Your task to perform on an android device: turn on improve location accuracy Image 0: 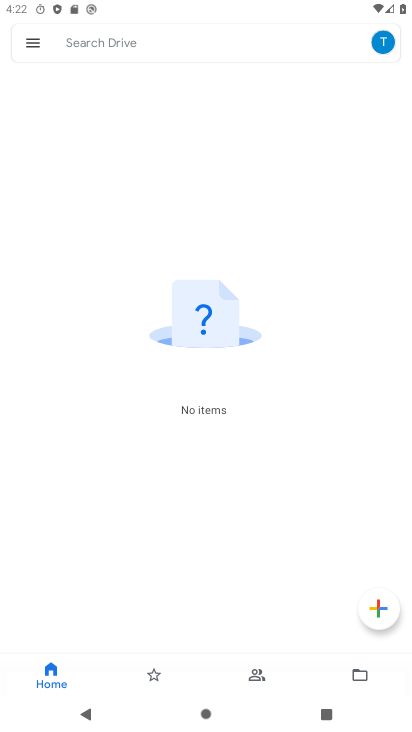
Step 0: press home button
Your task to perform on an android device: turn on improve location accuracy Image 1: 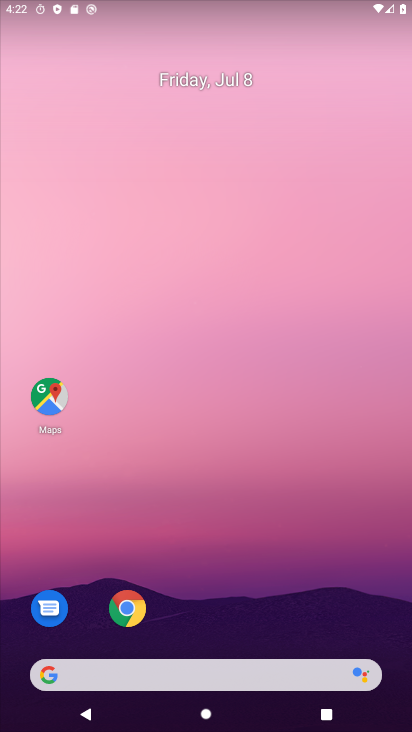
Step 1: drag from (260, 608) to (237, 0)
Your task to perform on an android device: turn on improve location accuracy Image 2: 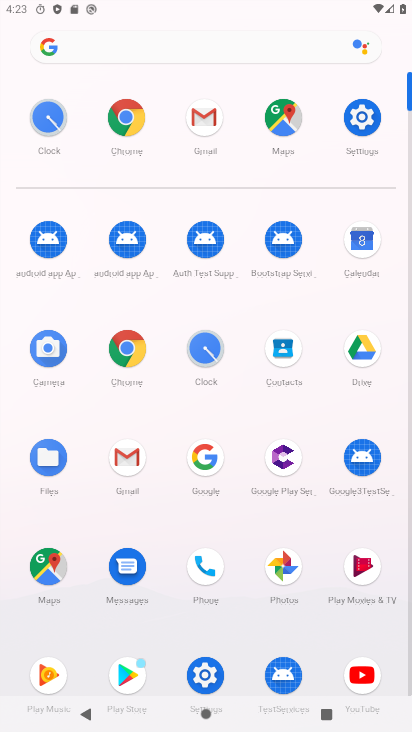
Step 2: click (375, 124)
Your task to perform on an android device: turn on improve location accuracy Image 3: 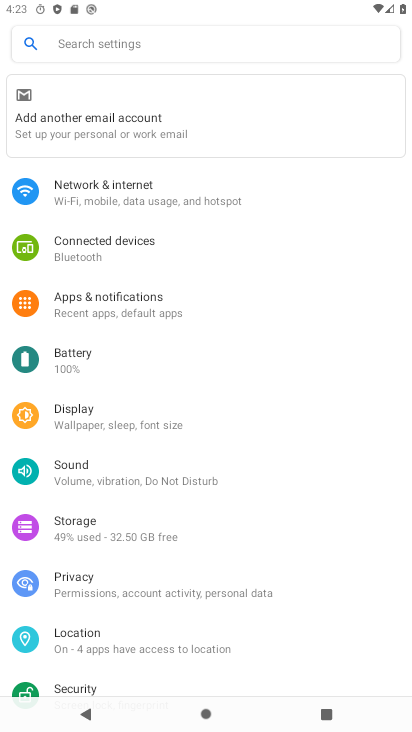
Step 3: click (84, 639)
Your task to perform on an android device: turn on improve location accuracy Image 4: 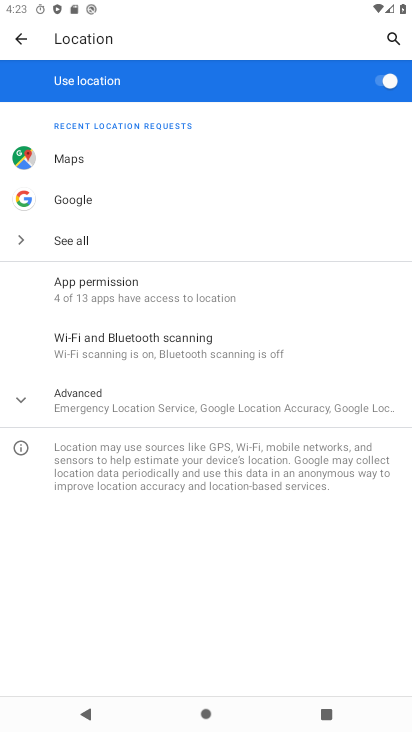
Step 4: click (19, 408)
Your task to perform on an android device: turn on improve location accuracy Image 5: 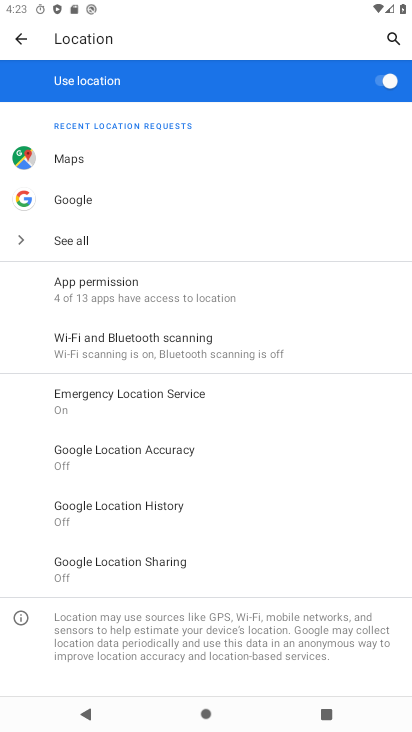
Step 5: click (147, 457)
Your task to perform on an android device: turn on improve location accuracy Image 6: 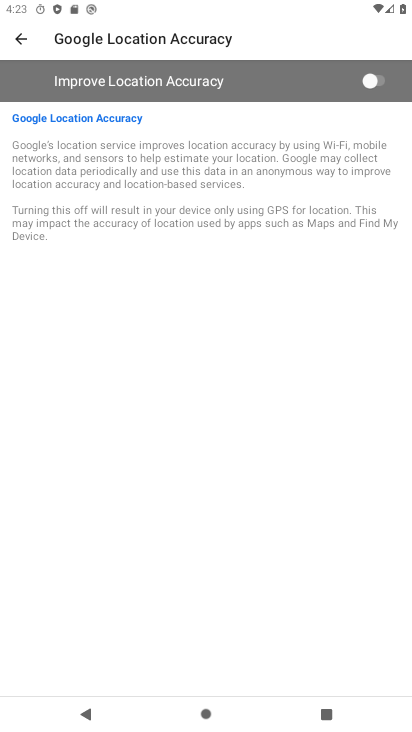
Step 6: click (367, 81)
Your task to perform on an android device: turn on improve location accuracy Image 7: 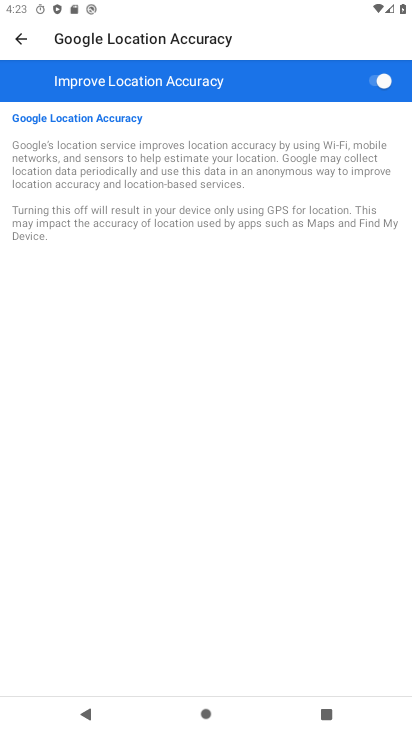
Step 7: task complete